Your task to perform on an android device: Open sound settings Image 0: 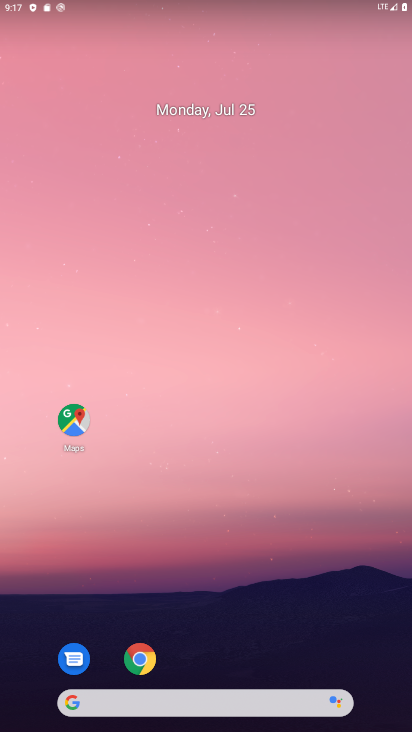
Step 0: drag from (214, 648) to (250, 77)
Your task to perform on an android device: Open sound settings Image 1: 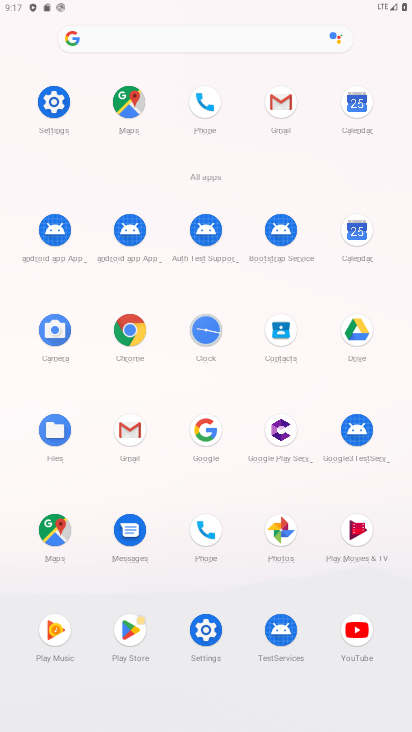
Step 1: click (208, 643)
Your task to perform on an android device: Open sound settings Image 2: 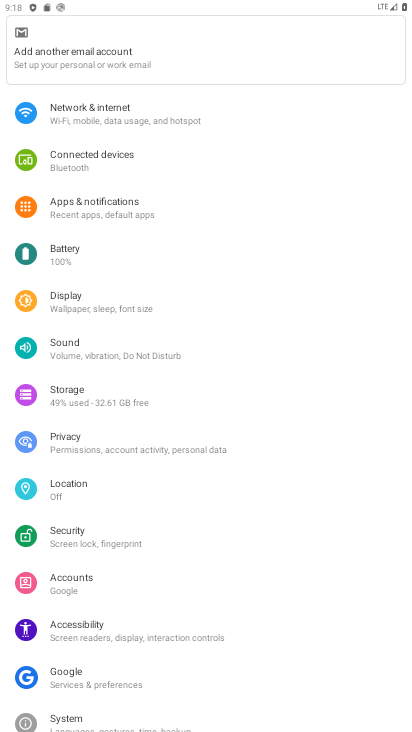
Step 2: click (99, 353)
Your task to perform on an android device: Open sound settings Image 3: 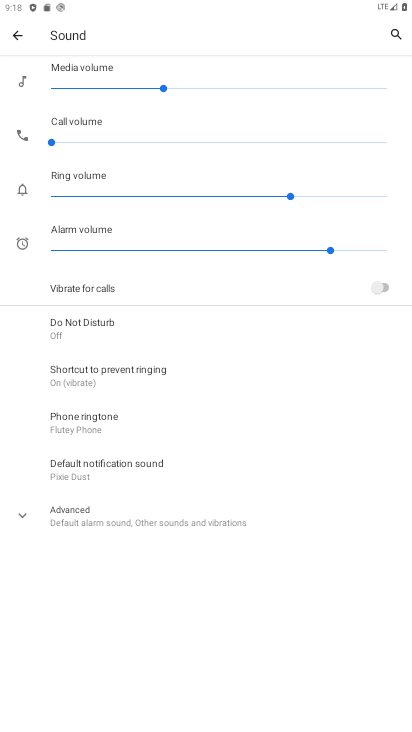
Step 3: task complete